Your task to perform on an android device: open a bookmark in the chrome app Image 0: 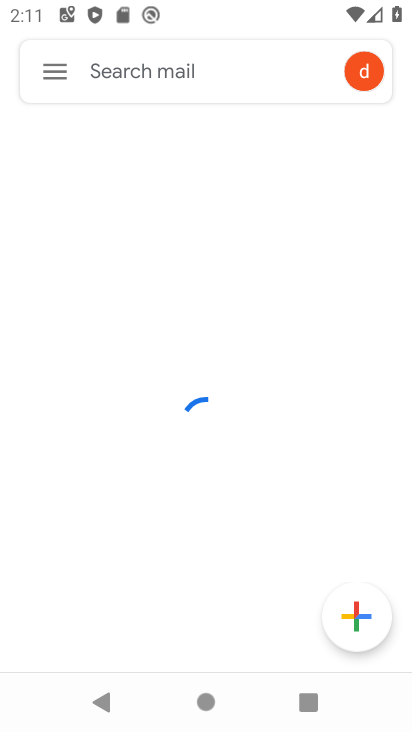
Step 0: press home button
Your task to perform on an android device: open a bookmark in the chrome app Image 1: 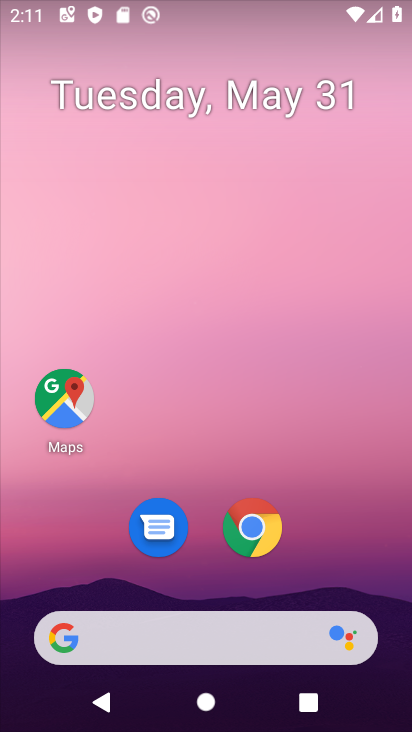
Step 1: drag from (342, 558) to (350, 71)
Your task to perform on an android device: open a bookmark in the chrome app Image 2: 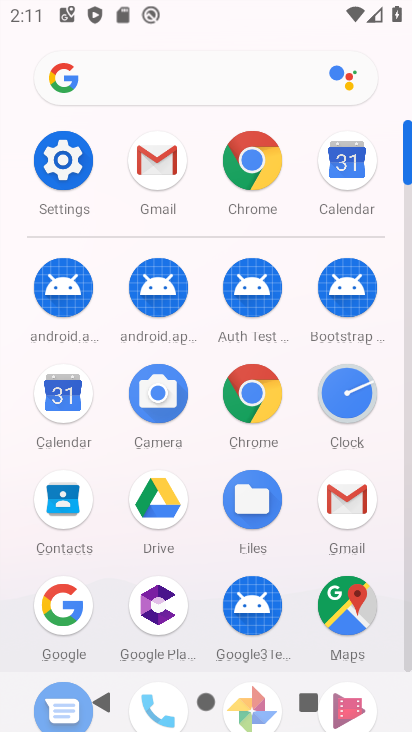
Step 2: click (261, 165)
Your task to perform on an android device: open a bookmark in the chrome app Image 3: 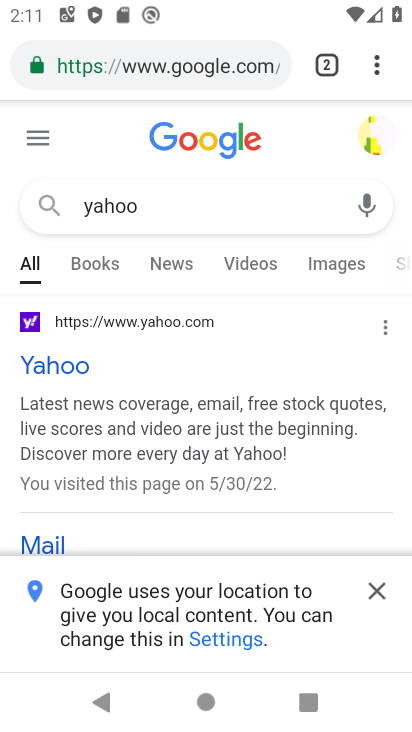
Step 3: task complete